Your task to perform on an android device: Open Google Maps and go to "Timeline" Image 0: 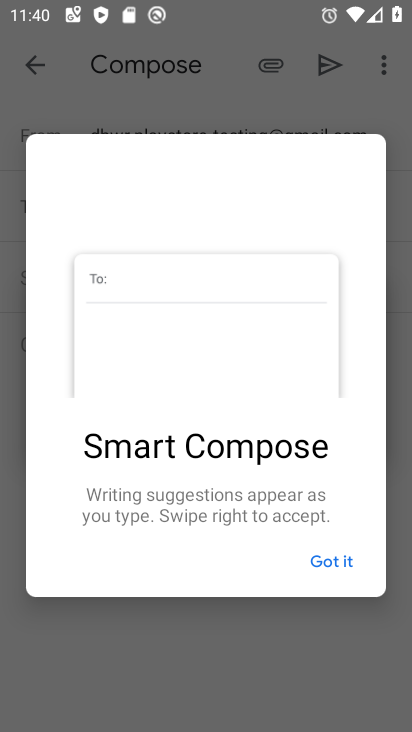
Step 0: press home button
Your task to perform on an android device: Open Google Maps and go to "Timeline" Image 1: 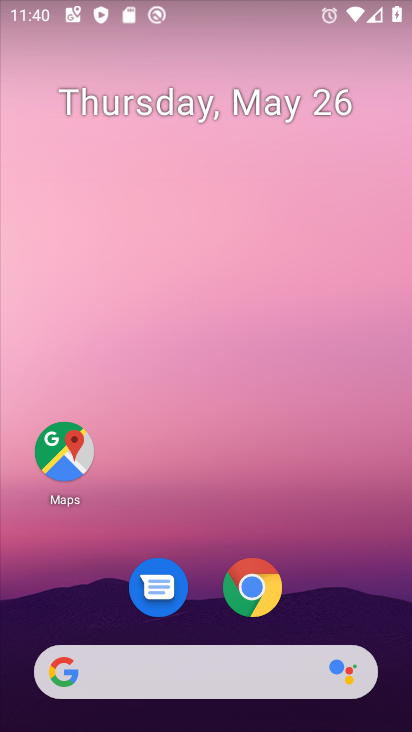
Step 1: drag from (233, 688) to (218, 232)
Your task to perform on an android device: Open Google Maps and go to "Timeline" Image 2: 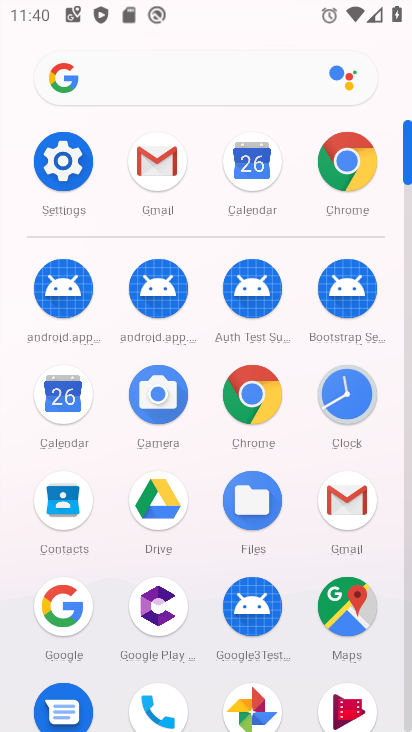
Step 2: click (341, 600)
Your task to perform on an android device: Open Google Maps and go to "Timeline" Image 3: 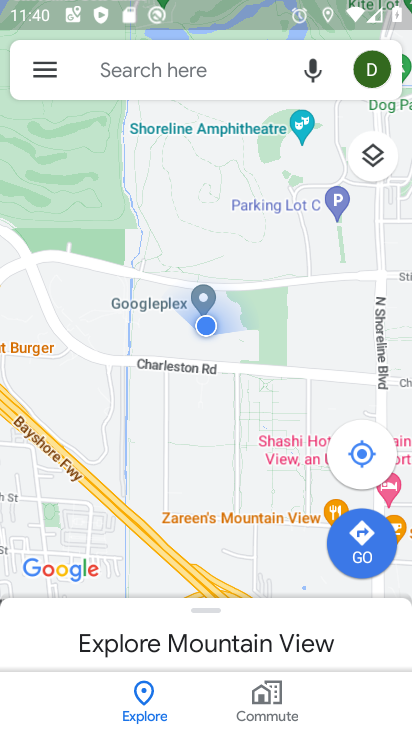
Step 3: click (35, 68)
Your task to perform on an android device: Open Google Maps and go to "Timeline" Image 4: 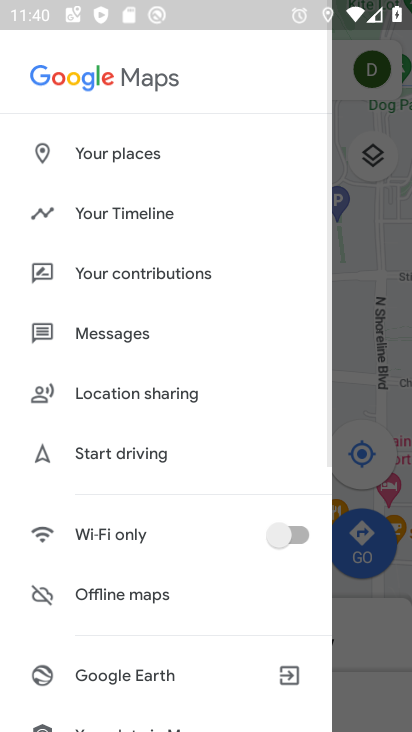
Step 4: click (89, 217)
Your task to perform on an android device: Open Google Maps and go to "Timeline" Image 5: 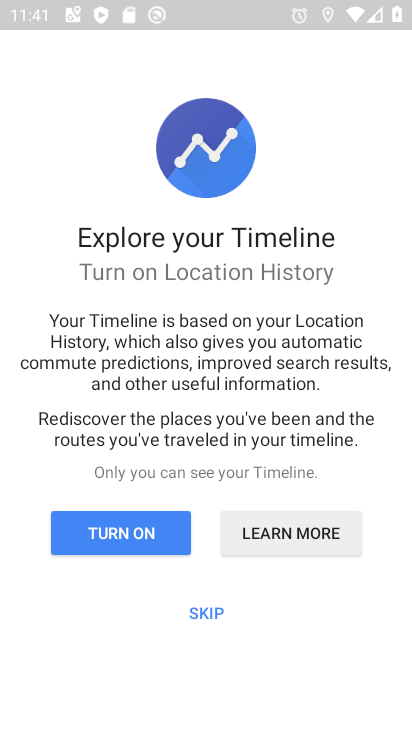
Step 5: click (204, 597)
Your task to perform on an android device: Open Google Maps and go to "Timeline" Image 6: 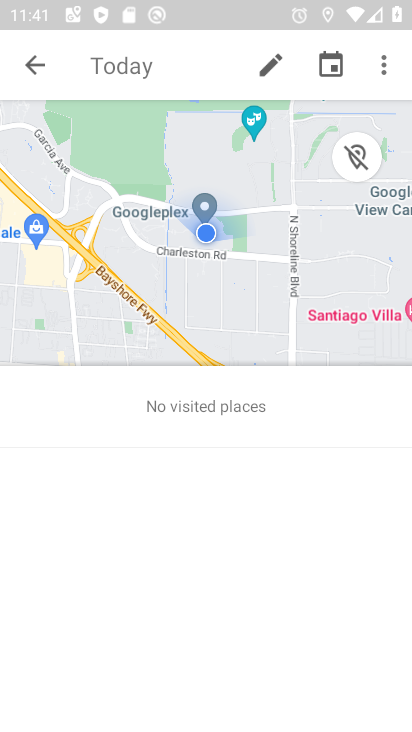
Step 6: task complete